Your task to perform on an android device: Go to battery settings Image 0: 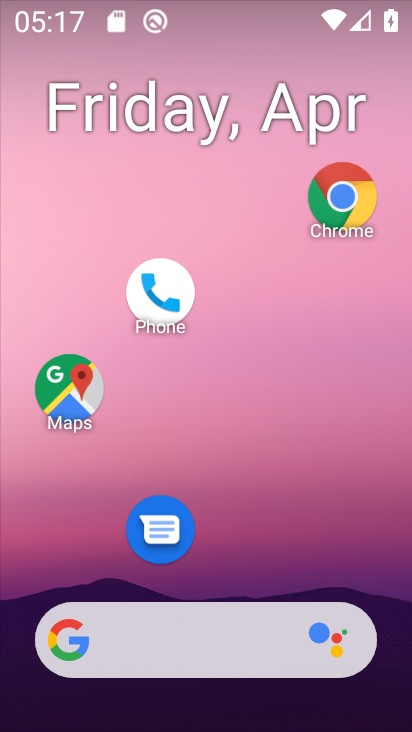
Step 0: drag from (245, 583) to (257, 67)
Your task to perform on an android device: Go to battery settings Image 1: 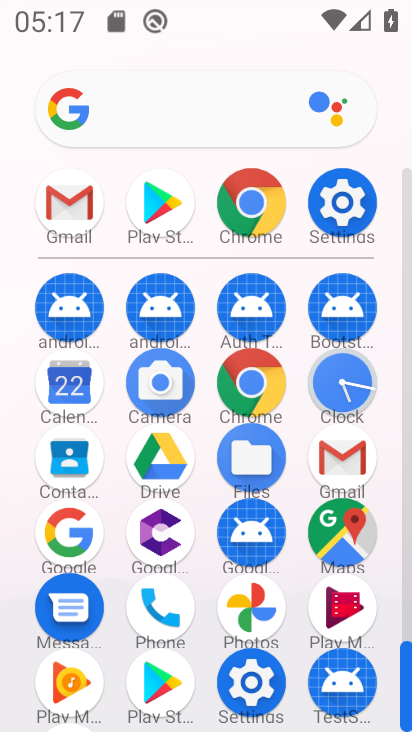
Step 1: click (248, 677)
Your task to perform on an android device: Go to battery settings Image 2: 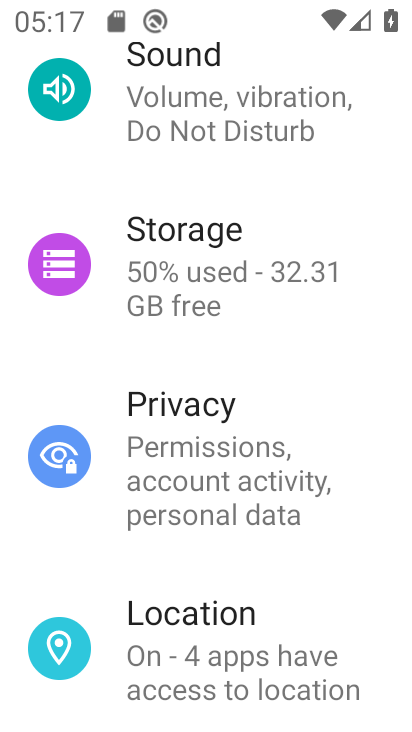
Step 2: drag from (196, 452) to (219, 727)
Your task to perform on an android device: Go to battery settings Image 3: 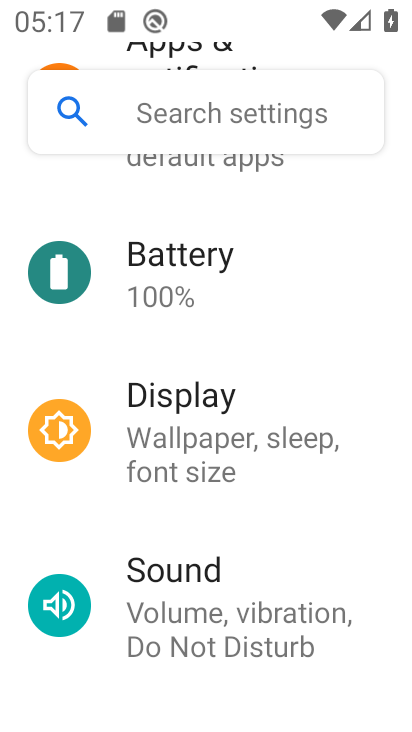
Step 3: click (203, 275)
Your task to perform on an android device: Go to battery settings Image 4: 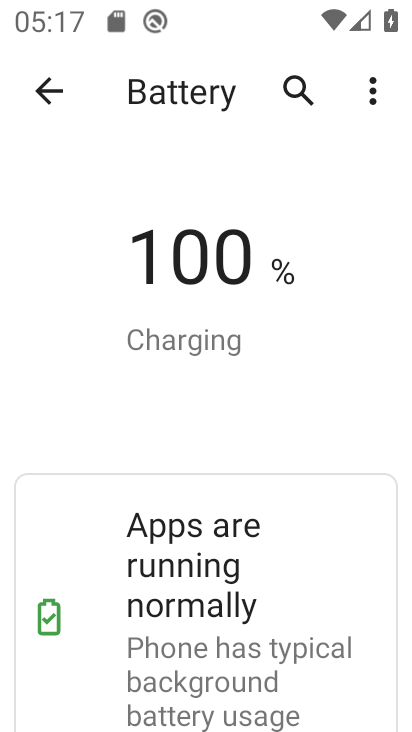
Step 4: task complete